Your task to perform on an android device: When is my next meeting? Image 0: 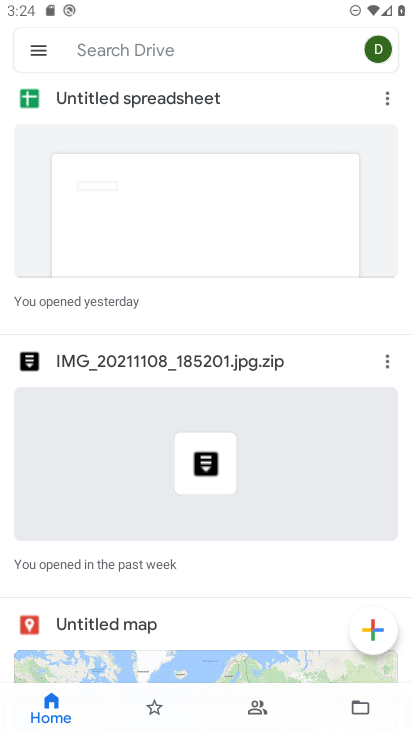
Step 0: press home button
Your task to perform on an android device: When is my next meeting? Image 1: 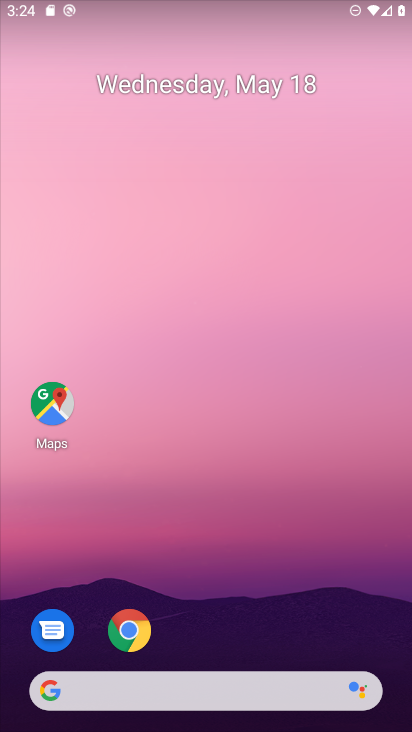
Step 1: drag from (238, 646) to (267, 1)
Your task to perform on an android device: When is my next meeting? Image 2: 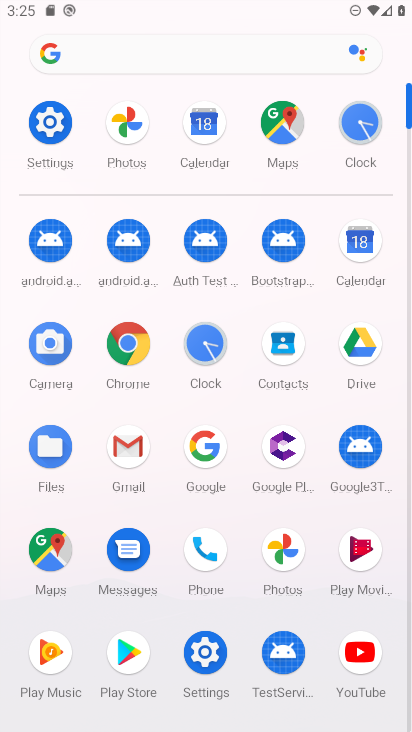
Step 2: click (358, 238)
Your task to perform on an android device: When is my next meeting? Image 3: 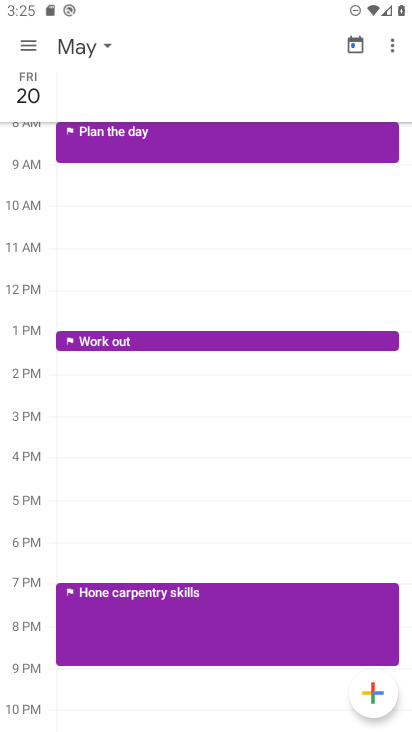
Step 3: click (36, 86)
Your task to perform on an android device: When is my next meeting? Image 4: 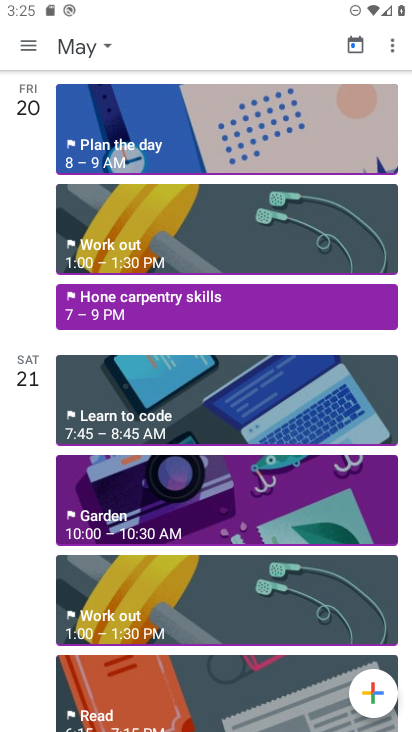
Step 4: task complete